Your task to perform on an android device: Open Yahoo.com Image 0: 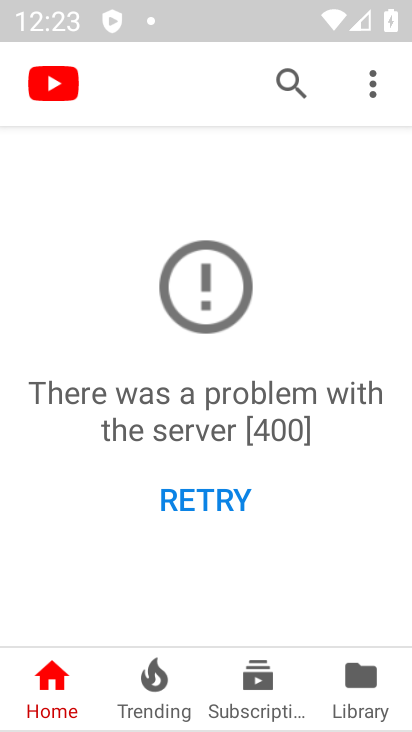
Step 0: press home button
Your task to perform on an android device: Open Yahoo.com Image 1: 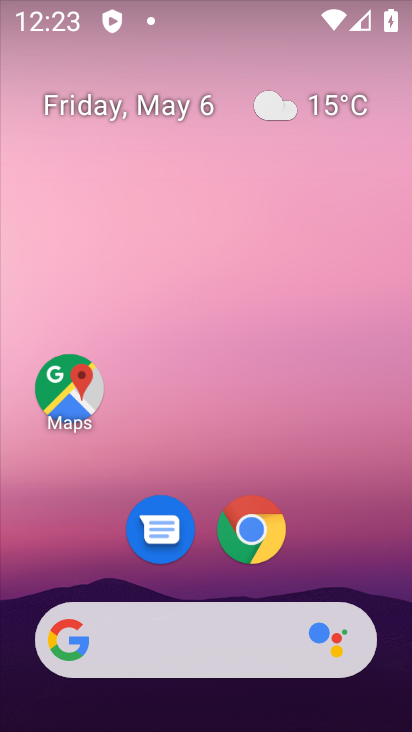
Step 1: click (261, 515)
Your task to perform on an android device: Open Yahoo.com Image 2: 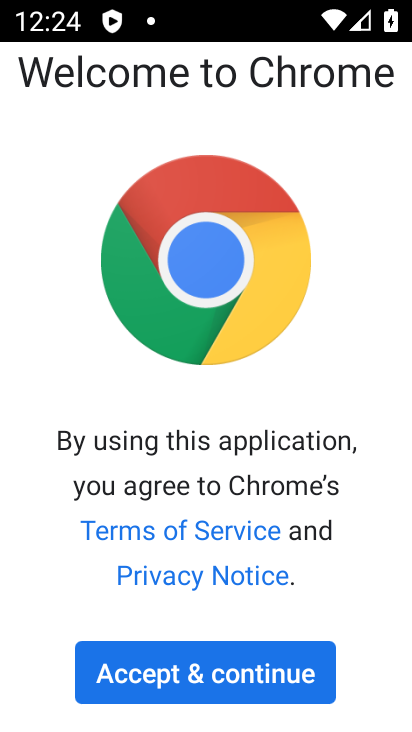
Step 2: click (205, 682)
Your task to perform on an android device: Open Yahoo.com Image 3: 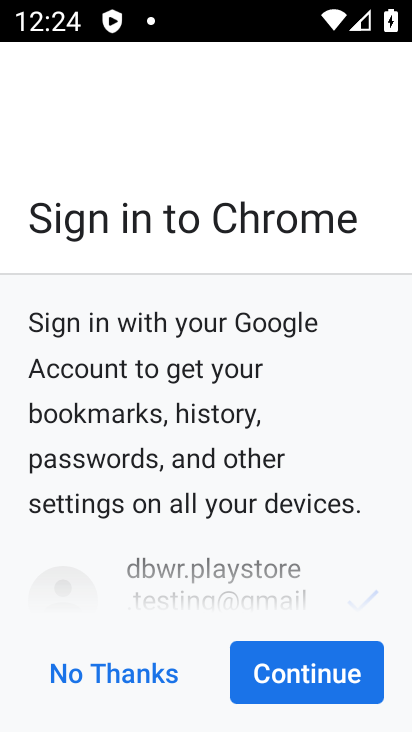
Step 3: click (355, 667)
Your task to perform on an android device: Open Yahoo.com Image 4: 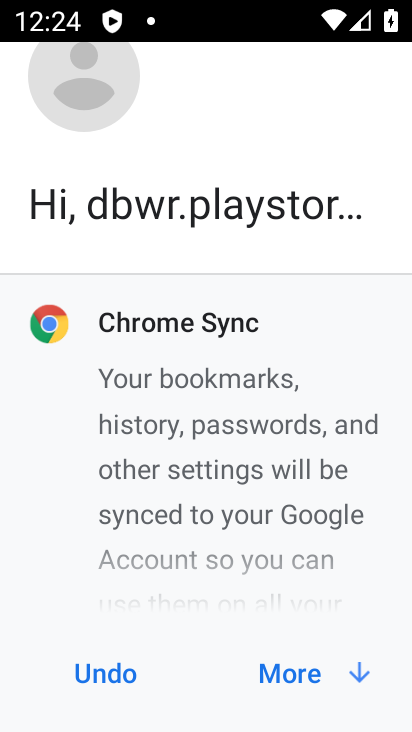
Step 4: click (331, 683)
Your task to perform on an android device: Open Yahoo.com Image 5: 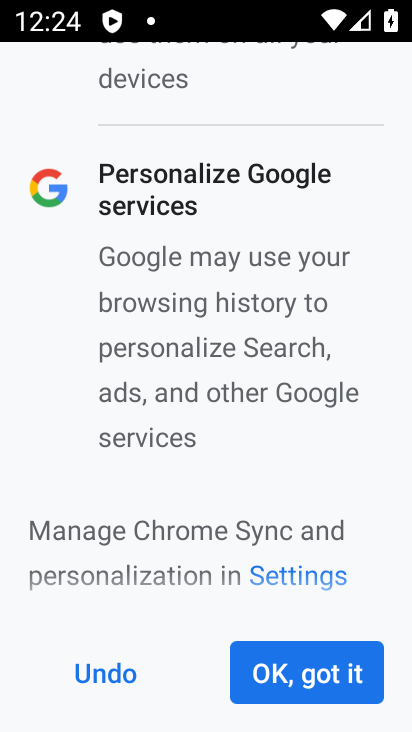
Step 5: click (330, 682)
Your task to perform on an android device: Open Yahoo.com Image 6: 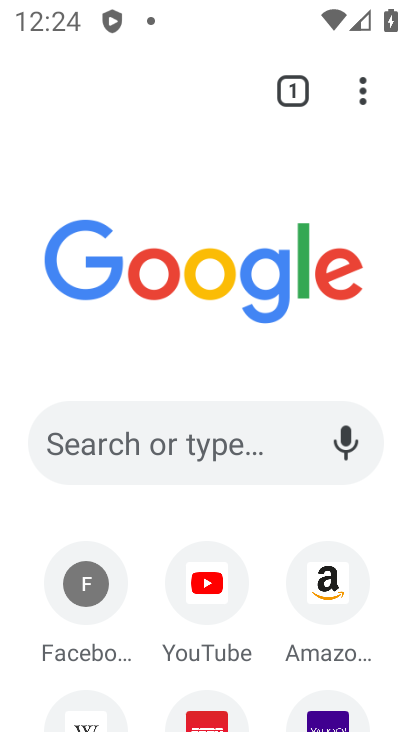
Step 6: drag from (165, 523) to (123, 260)
Your task to perform on an android device: Open Yahoo.com Image 7: 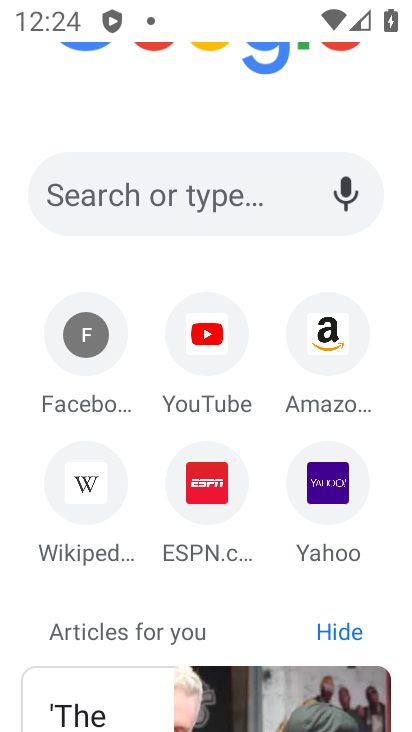
Step 7: click (304, 459)
Your task to perform on an android device: Open Yahoo.com Image 8: 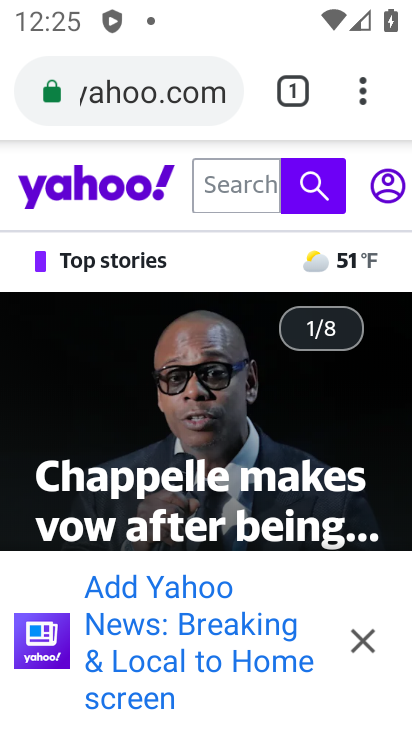
Step 8: task complete